Your task to perform on an android device: open app "Instagram" Image 0: 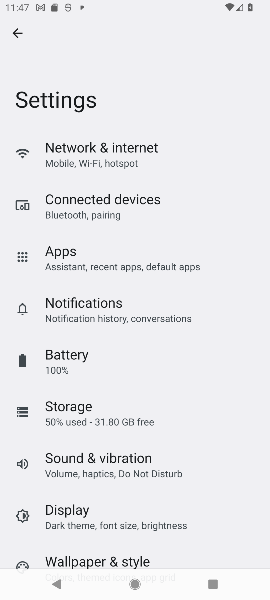
Step 0: task complete